Your task to perform on an android device: Go to eBay Image 0: 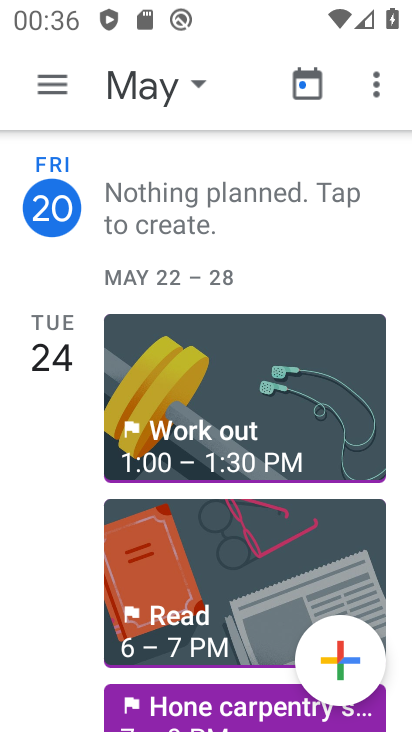
Step 0: press home button
Your task to perform on an android device: Go to eBay Image 1: 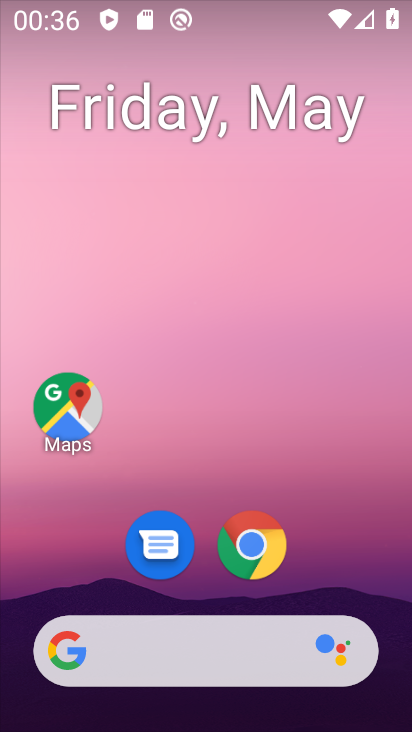
Step 1: click (248, 559)
Your task to perform on an android device: Go to eBay Image 2: 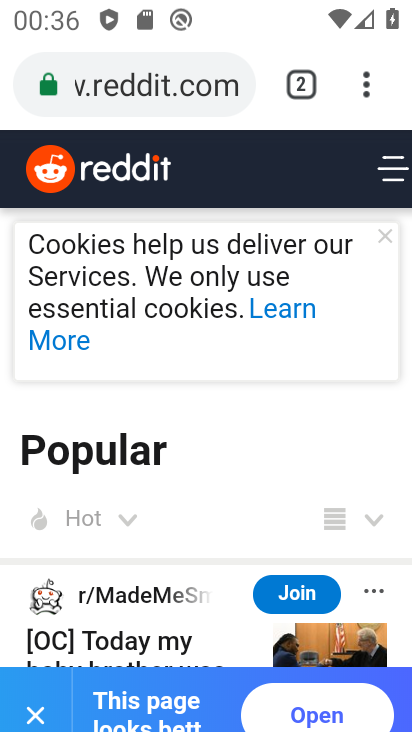
Step 2: drag from (255, 658) to (50, 722)
Your task to perform on an android device: Go to eBay Image 3: 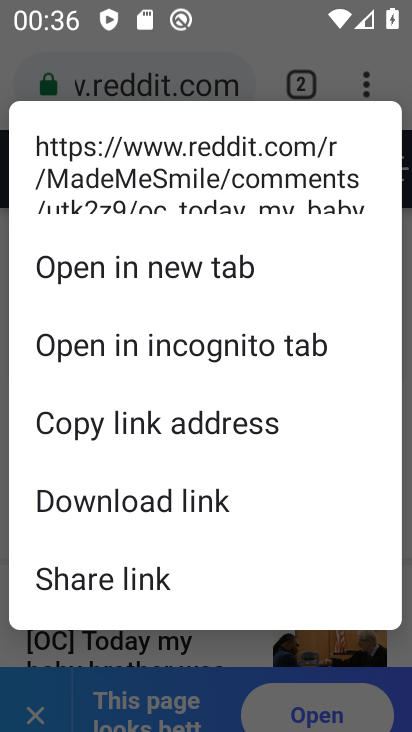
Step 3: press home button
Your task to perform on an android device: Go to eBay Image 4: 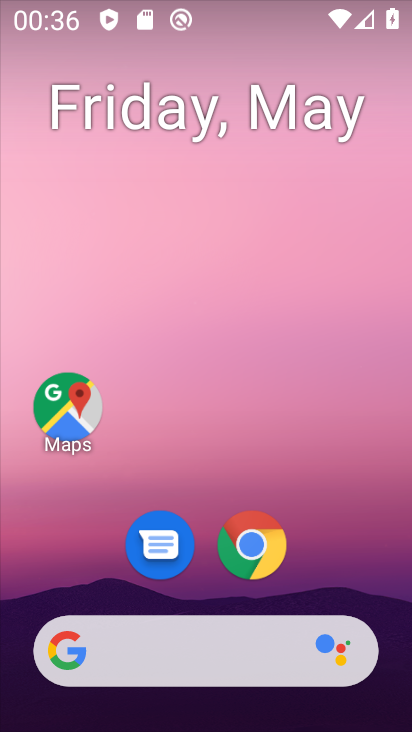
Step 4: click (257, 563)
Your task to perform on an android device: Go to eBay Image 5: 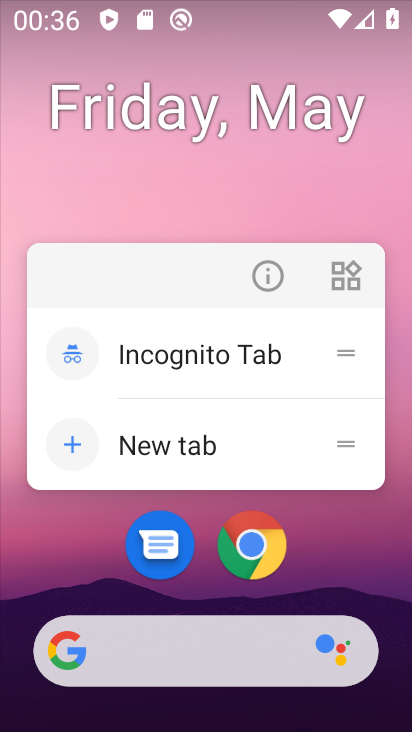
Step 5: click (251, 547)
Your task to perform on an android device: Go to eBay Image 6: 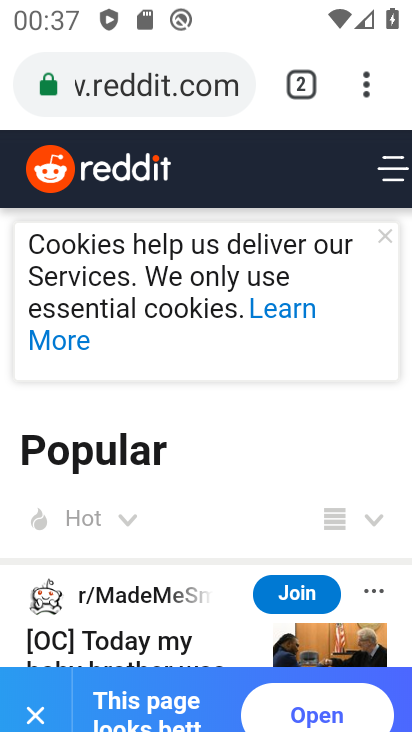
Step 6: press back button
Your task to perform on an android device: Go to eBay Image 7: 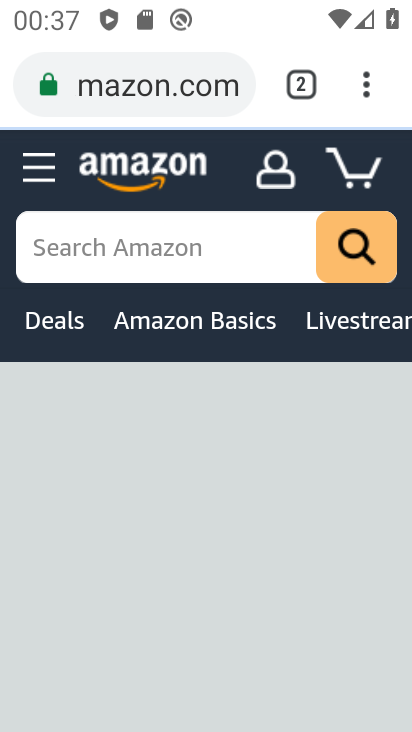
Step 7: press back button
Your task to perform on an android device: Go to eBay Image 8: 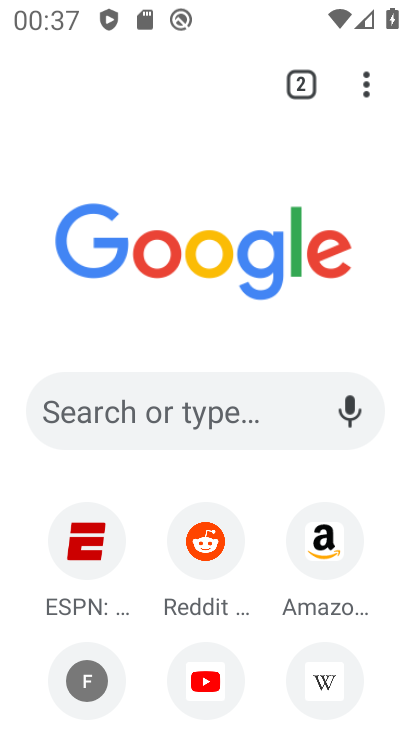
Step 8: click (166, 411)
Your task to perform on an android device: Go to eBay Image 9: 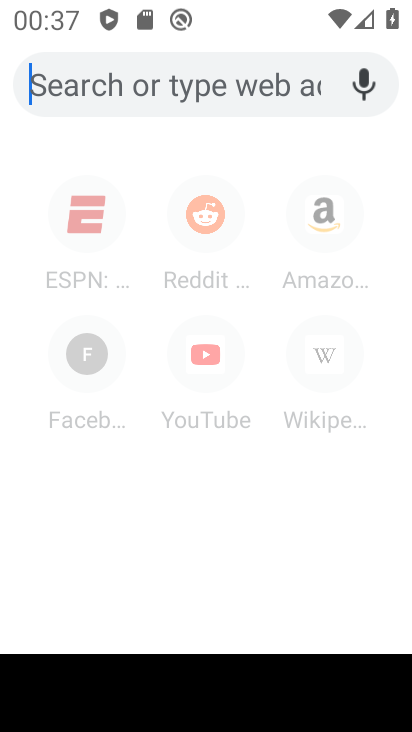
Step 9: type "www.ebay.com"
Your task to perform on an android device: Go to eBay Image 10: 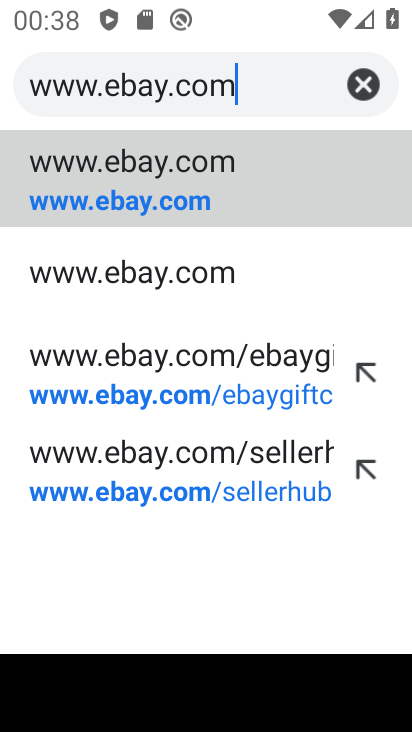
Step 10: click (164, 178)
Your task to perform on an android device: Go to eBay Image 11: 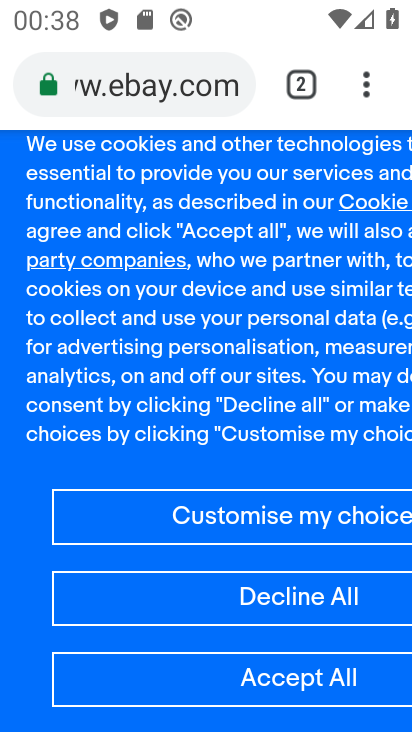
Step 11: task complete